Your task to perform on an android device: uninstall "Google Keep" Image 0: 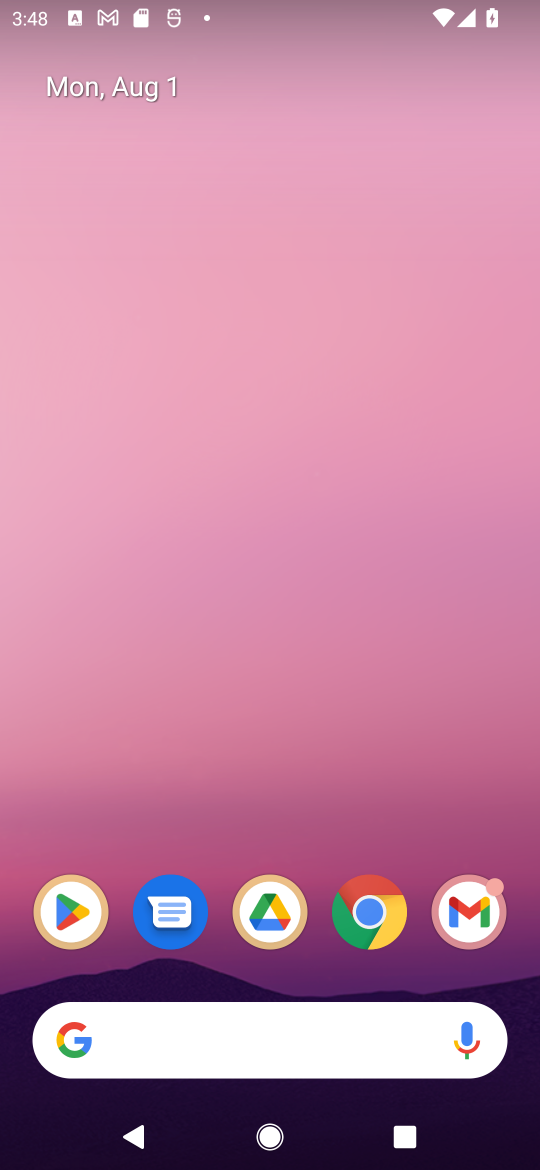
Step 0: click (70, 927)
Your task to perform on an android device: uninstall "Google Keep" Image 1: 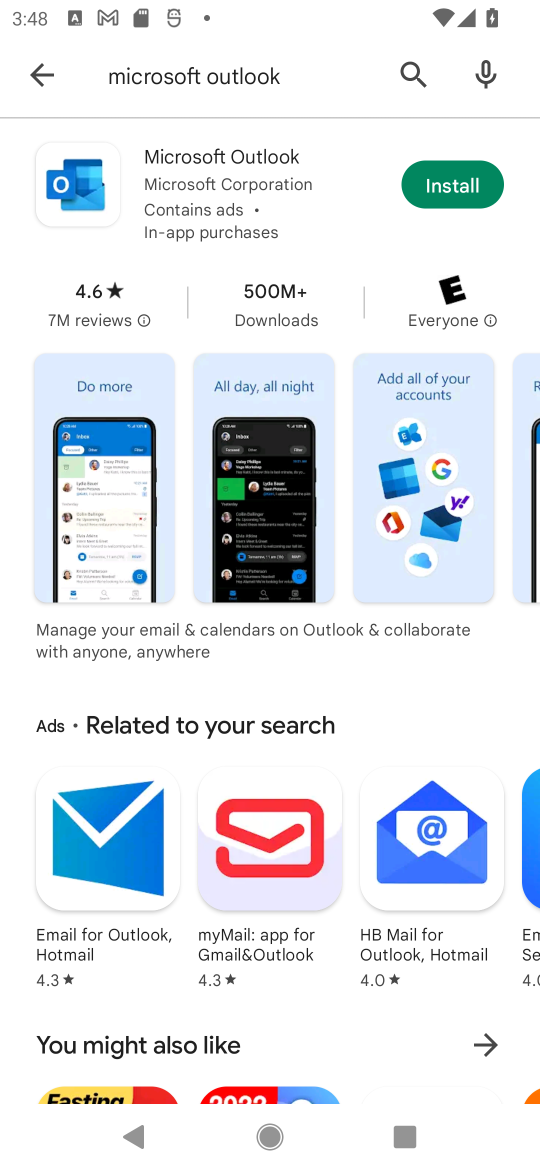
Step 1: click (405, 62)
Your task to perform on an android device: uninstall "Google Keep" Image 2: 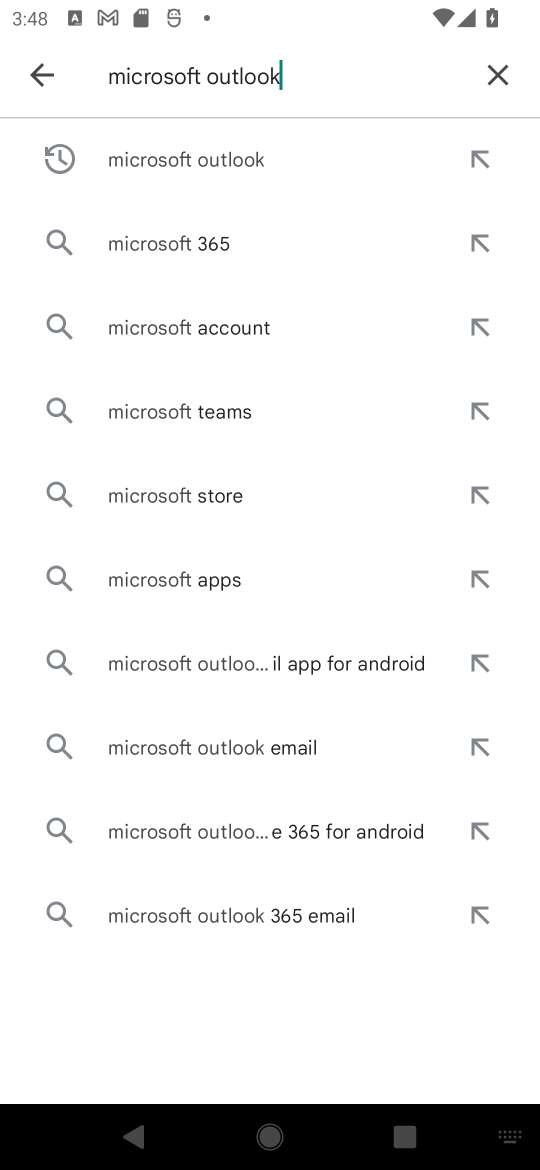
Step 2: click (508, 73)
Your task to perform on an android device: uninstall "Google Keep" Image 3: 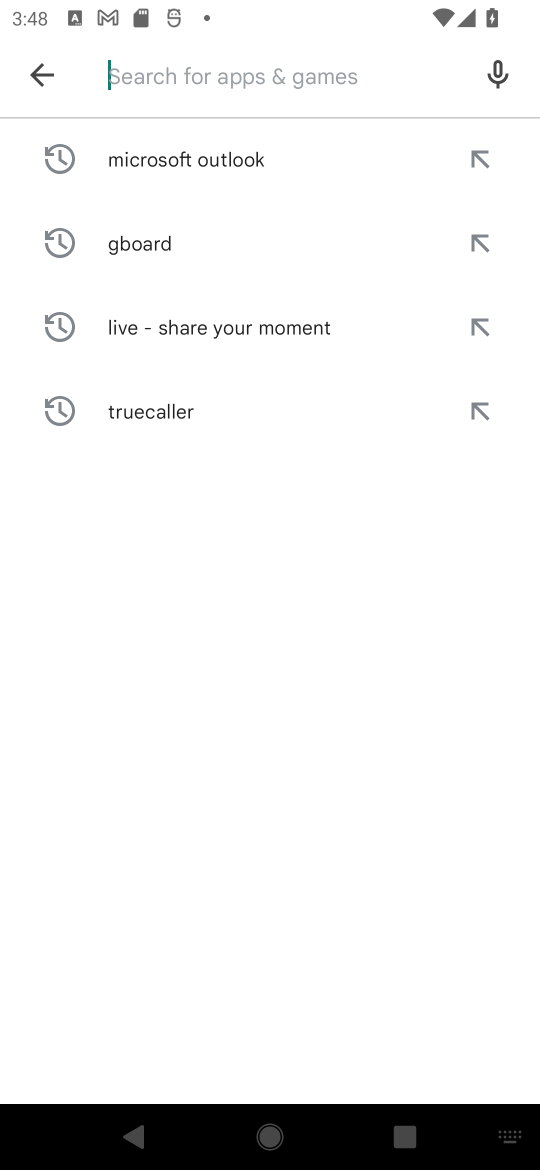
Step 3: type "Google Keep"
Your task to perform on an android device: uninstall "Google Keep" Image 4: 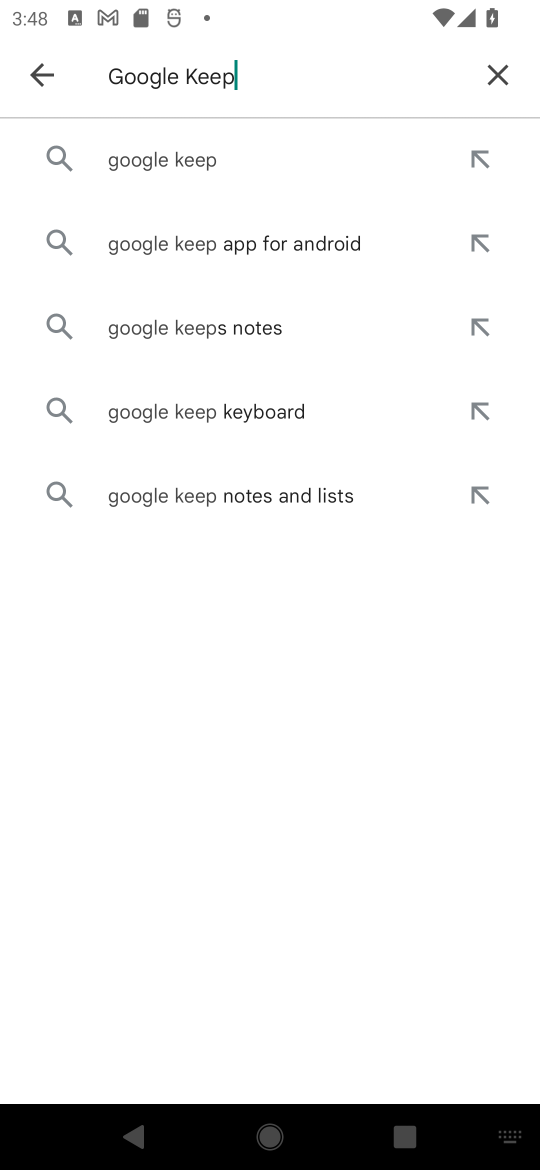
Step 4: click (184, 161)
Your task to perform on an android device: uninstall "Google Keep" Image 5: 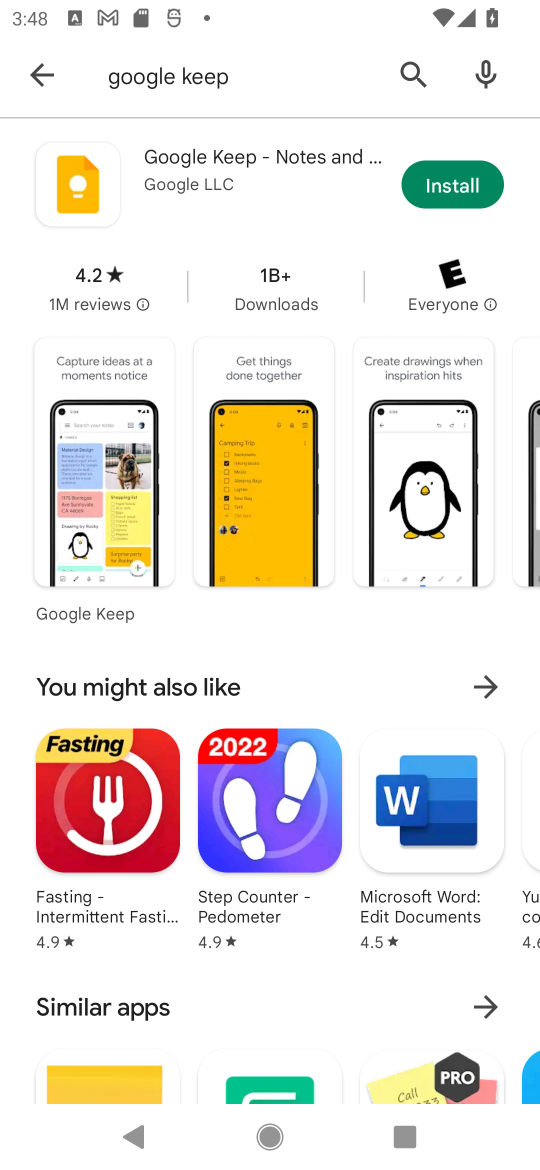
Step 5: task complete